Your task to perform on an android device: Go to Google Image 0: 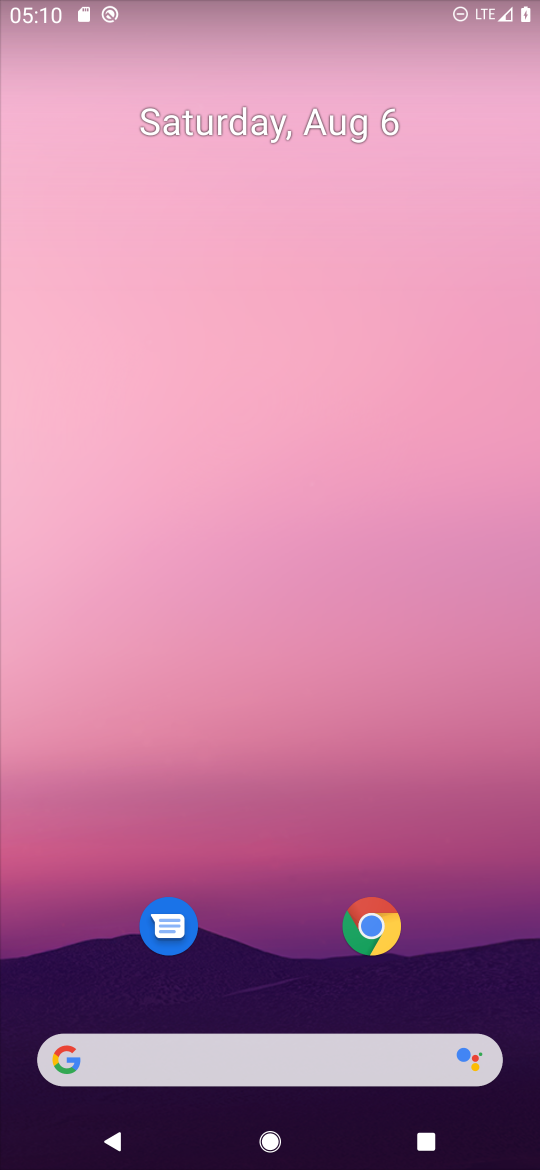
Step 0: drag from (295, 799) to (295, 313)
Your task to perform on an android device: Go to Google Image 1: 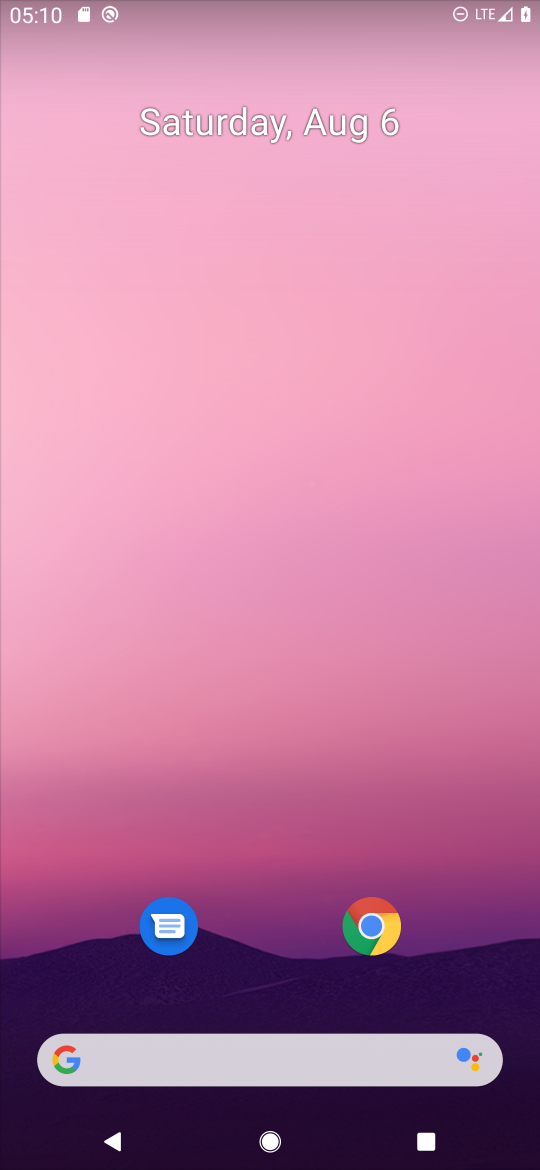
Step 1: drag from (249, 963) to (274, 297)
Your task to perform on an android device: Go to Google Image 2: 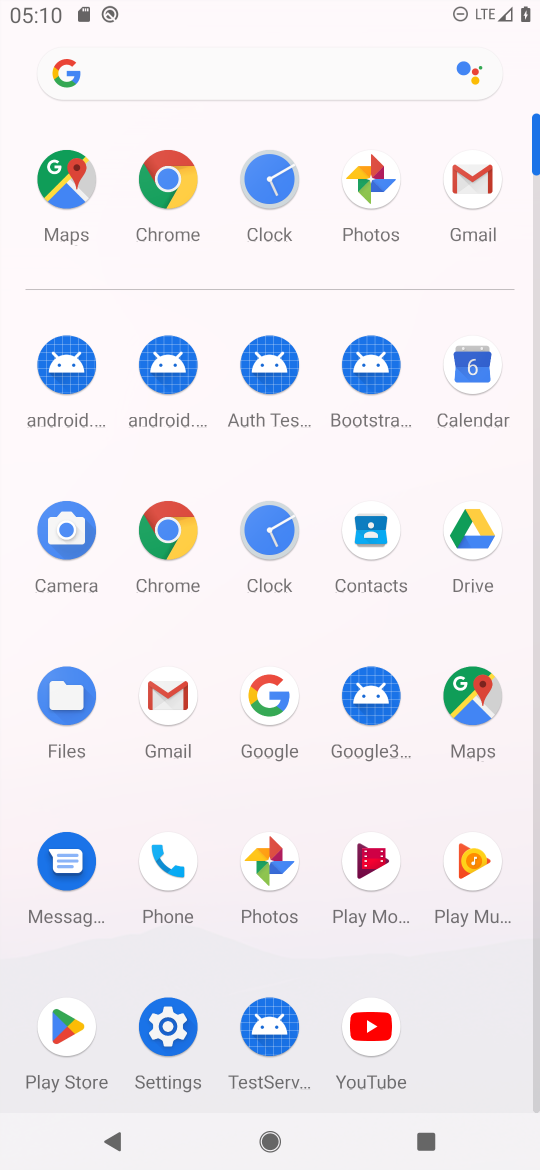
Step 2: click (259, 721)
Your task to perform on an android device: Go to Google Image 3: 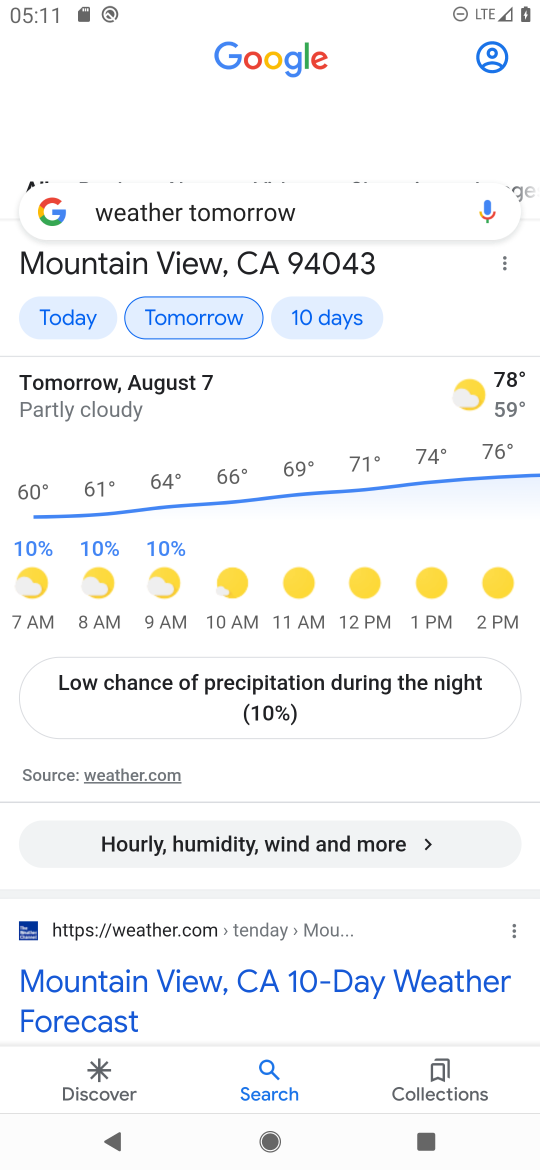
Step 3: task complete